Your task to perform on an android device: toggle improve location accuracy Image 0: 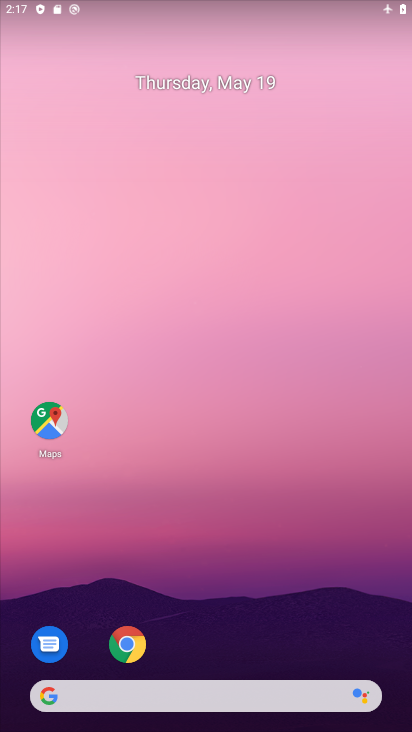
Step 0: drag from (277, 623) to (306, 293)
Your task to perform on an android device: toggle improve location accuracy Image 1: 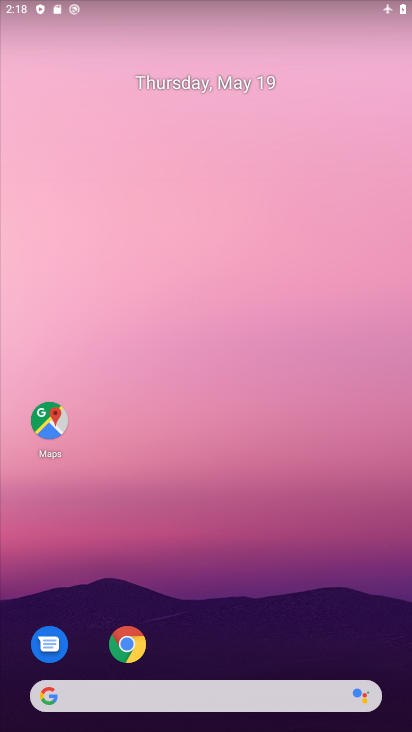
Step 1: drag from (254, 599) to (288, 288)
Your task to perform on an android device: toggle improve location accuracy Image 2: 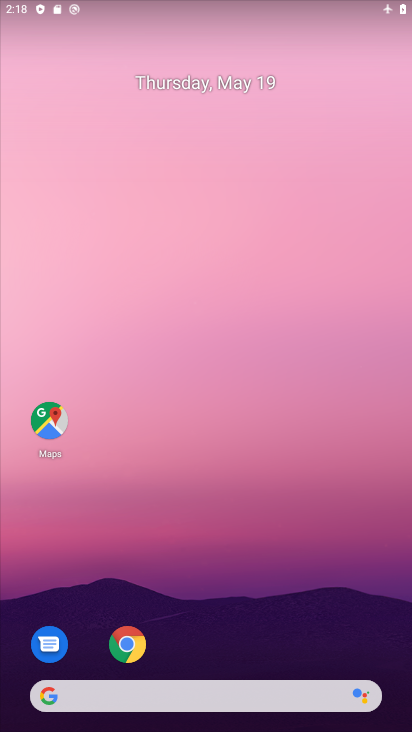
Step 2: drag from (251, 611) to (309, 175)
Your task to perform on an android device: toggle improve location accuracy Image 3: 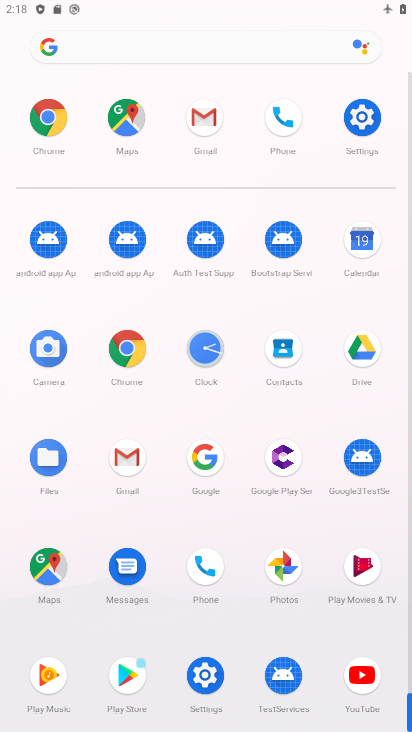
Step 3: click (353, 116)
Your task to perform on an android device: toggle improve location accuracy Image 4: 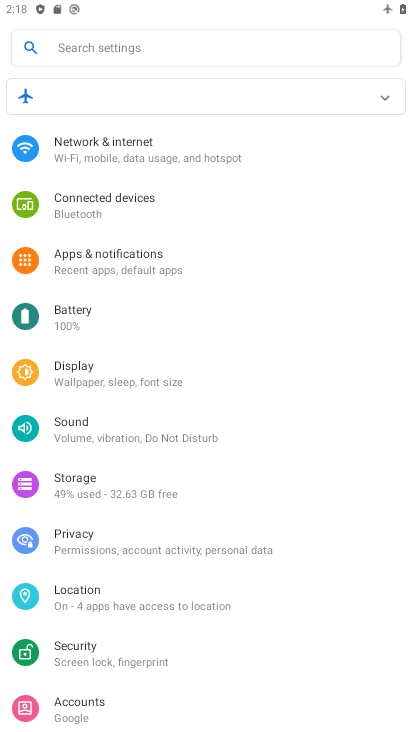
Step 4: click (123, 599)
Your task to perform on an android device: toggle improve location accuracy Image 5: 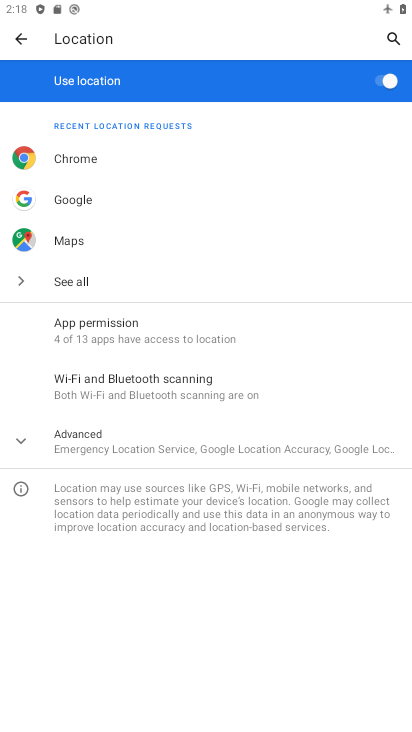
Step 5: click (140, 437)
Your task to perform on an android device: toggle improve location accuracy Image 6: 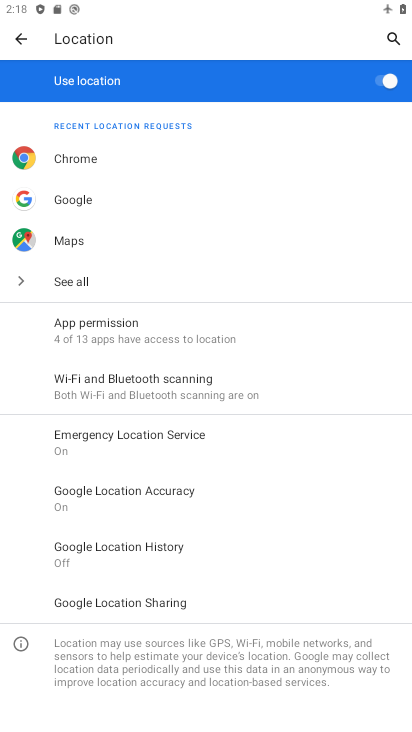
Step 6: click (147, 504)
Your task to perform on an android device: toggle improve location accuracy Image 7: 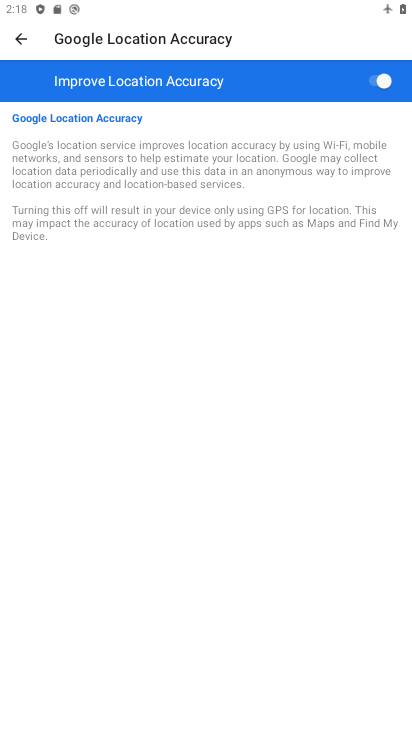
Step 7: click (389, 72)
Your task to perform on an android device: toggle improve location accuracy Image 8: 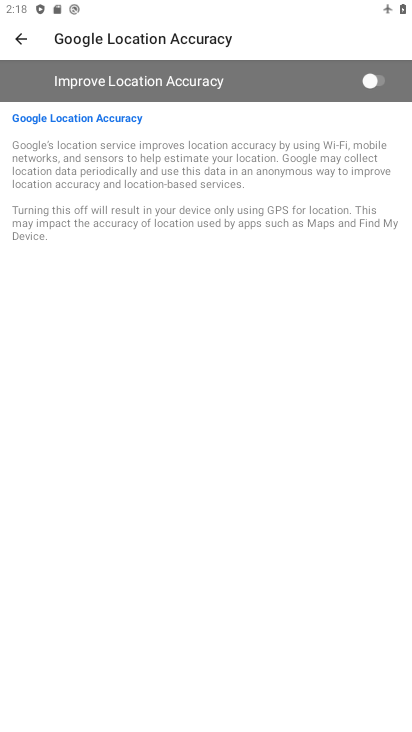
Step 8: task complete